Your task to perform on an android device: toggle wifi Image 0: 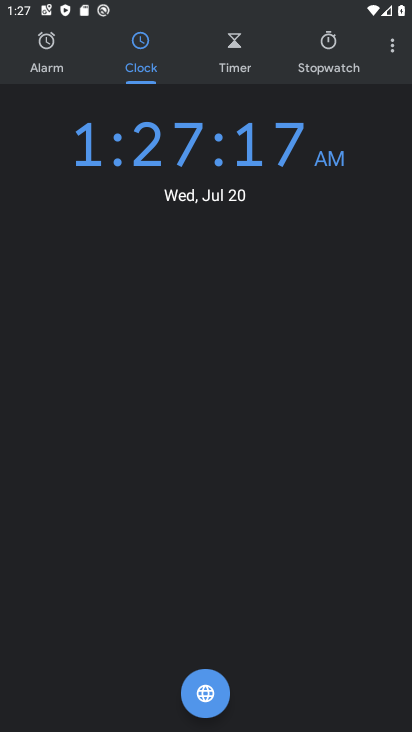
Step 0: press home button
Your task to perform on an android device: toggle wifi Image 1: 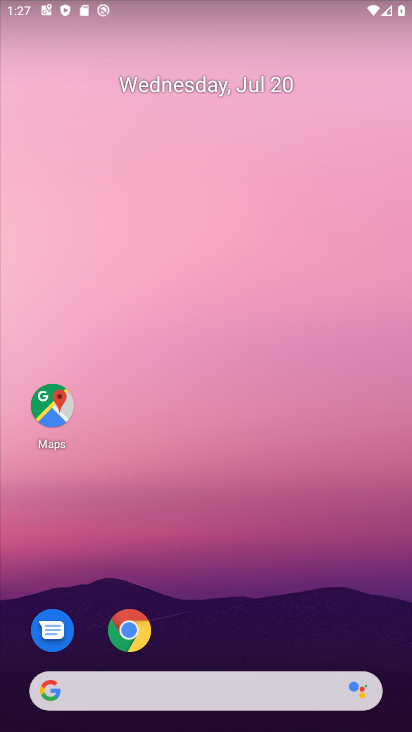
Step 1: drag from (283, 492) to (306, 53)
Your task to perform on an android device: toggle wifi Image 2: 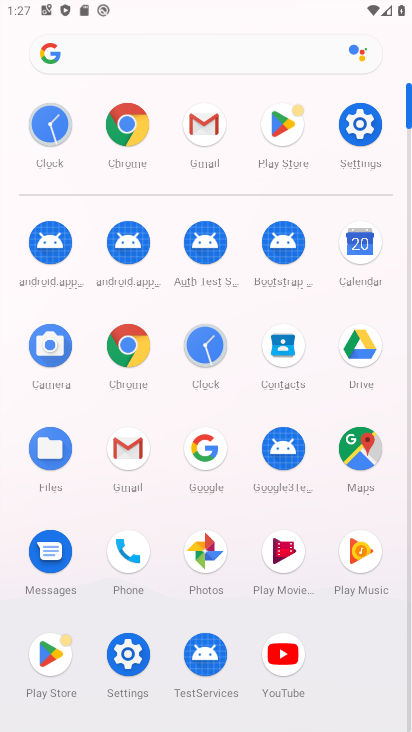
Step 2: click (375, 125)
Your task to perform on an android device: toggle wifi Image 3: 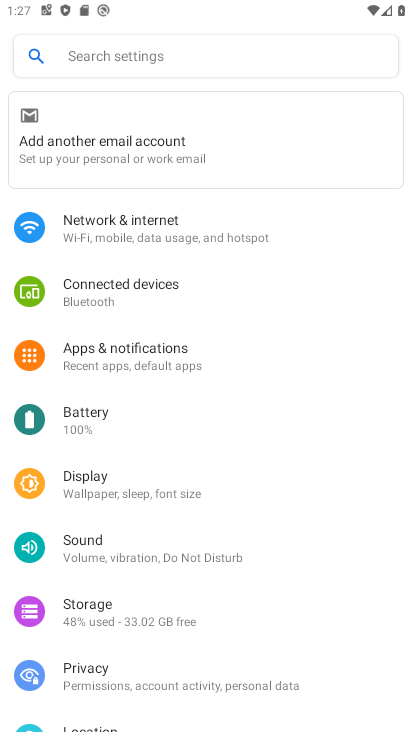
Step 3: click (131, 226)
Your task to perform on an android device: toggle wifi Image 4: 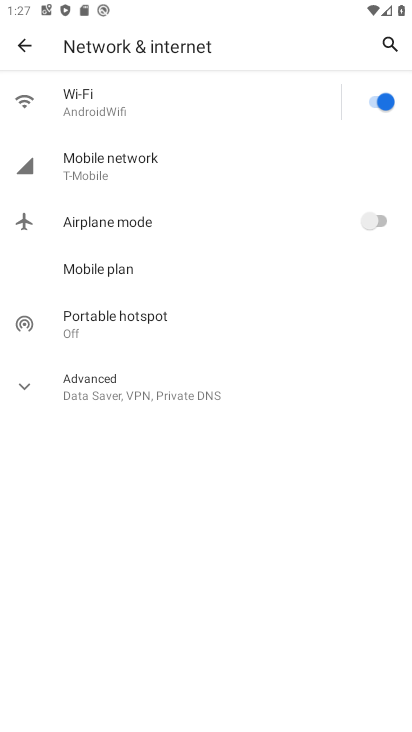
Step 4: click (173, 108)
Your task to perform on an android device: toggle wifi Image 5: 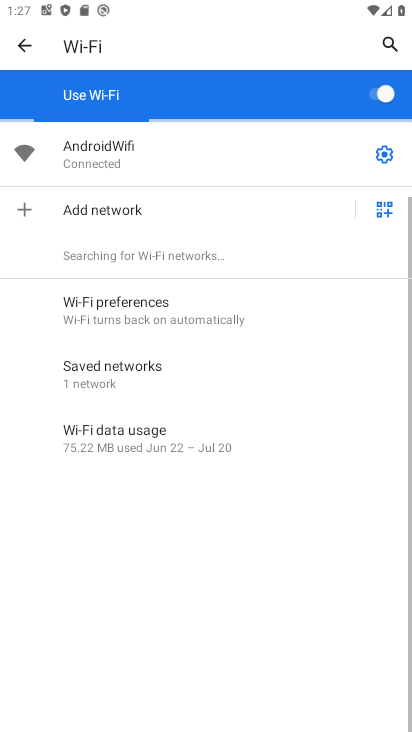
Step 5: click (380, 89)
Your task to perform on an android device: toggle wifi Image 6: 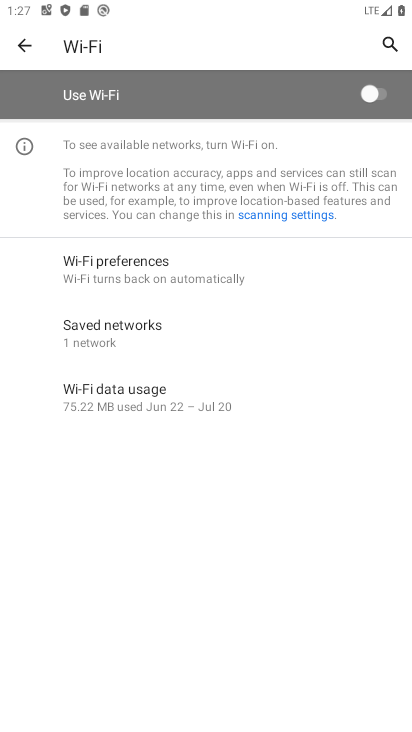
Step 6: task complete